Your task to perform on an android device: Go to ESPN.com Image 0: 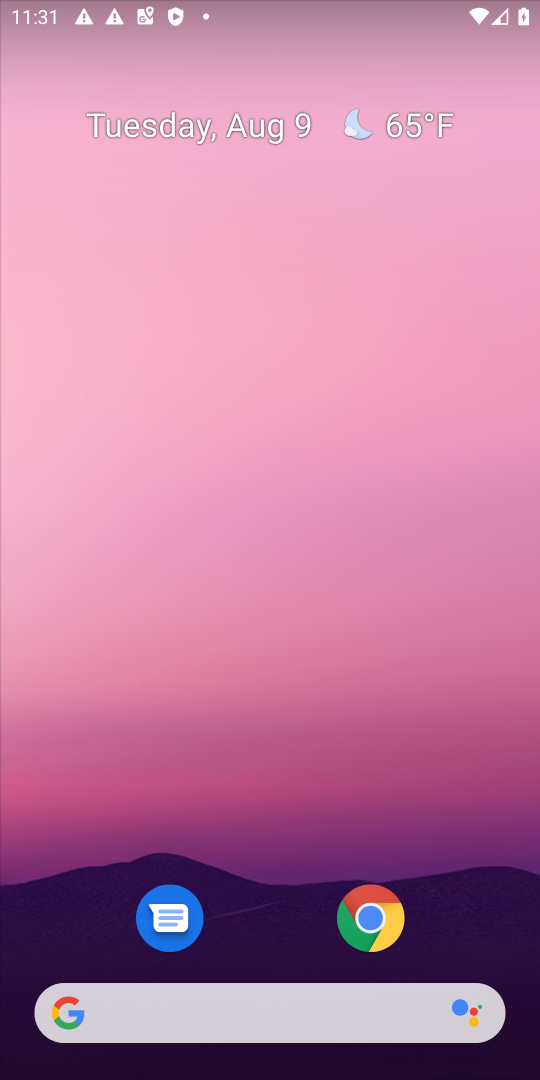
Step 0: drag from (276, 775) to (338, 100)
Your task to perform on an android device: Go to ESPN.com Image 1: 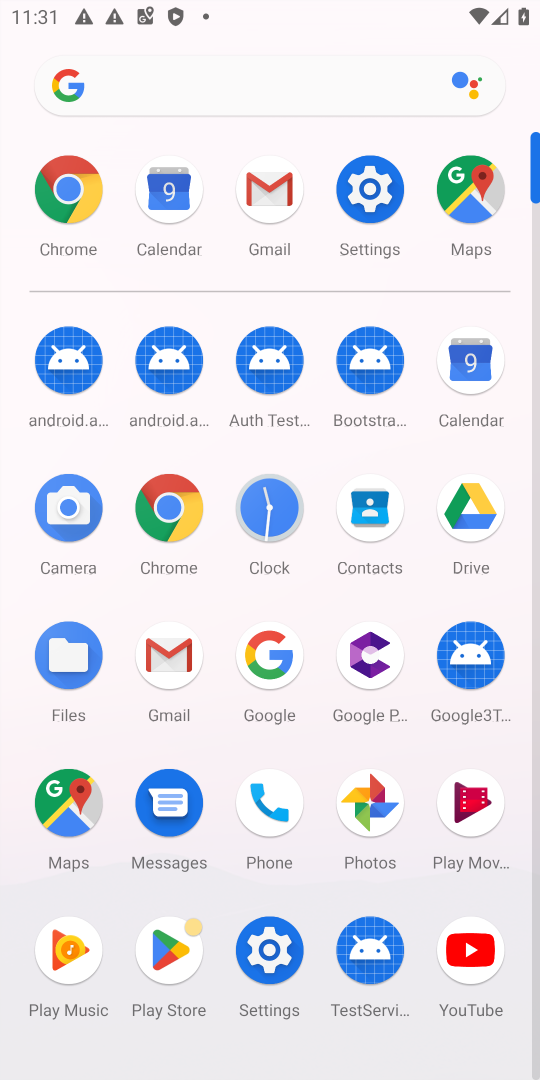
Step 1: click (171, 509)
Your task to perform on an android device: Go to ESPN.com Image 2: 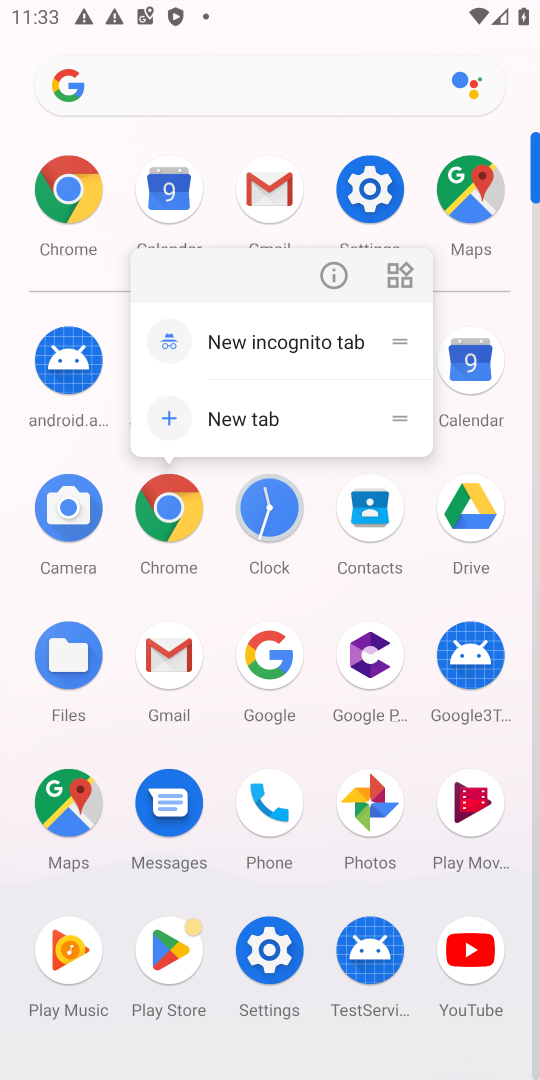
Step 2: click (172, 510)
Your task to perform on an android device: Go to ESPN.com Image 3: 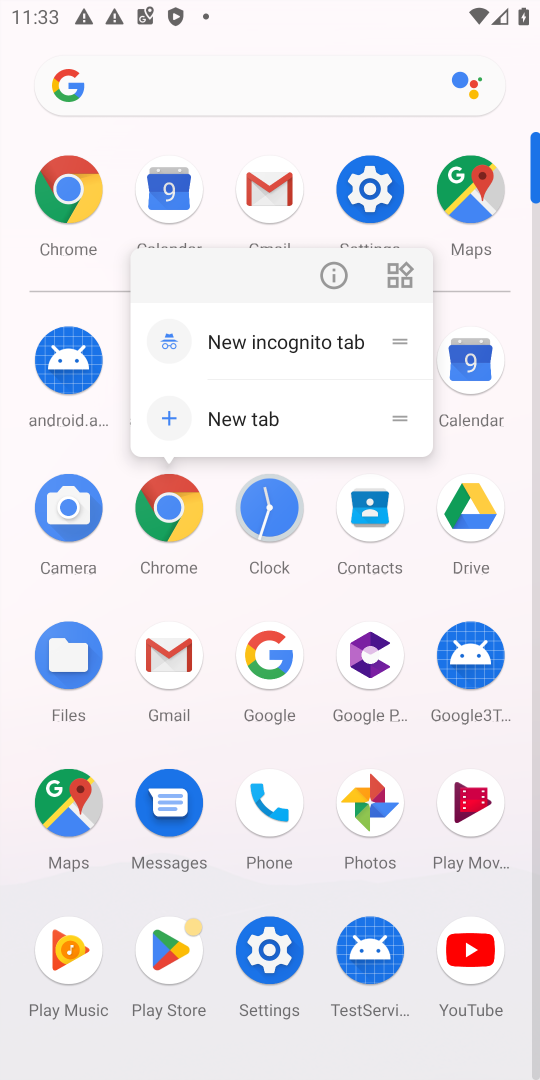
Step 3: click (170, 508)
Your task to perform on an android device: Go to ESPN.com Image 4: 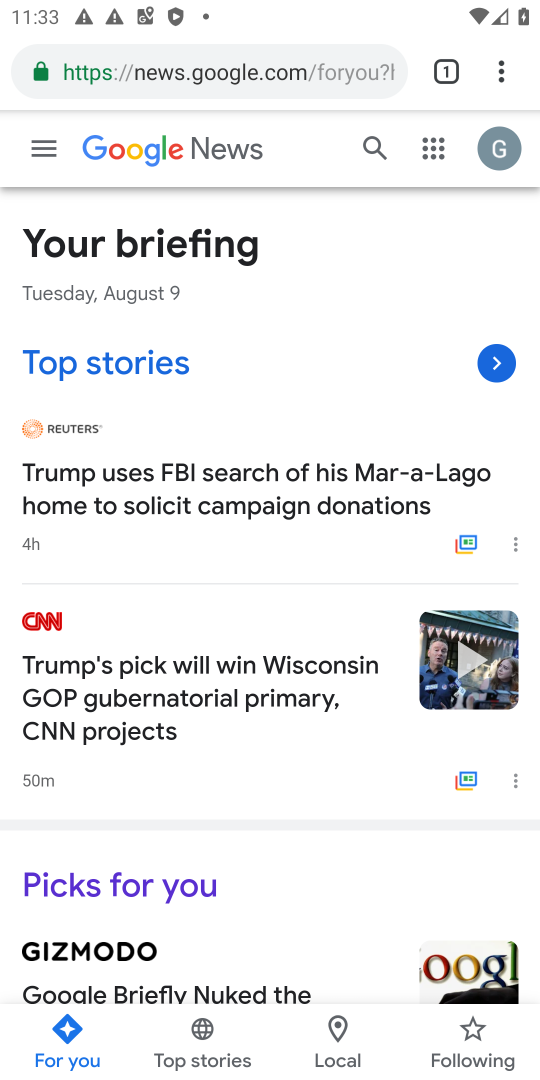
Step 4: click (359, 78)
Your task to perform on an android device: Go to ESPN.com Image 5: 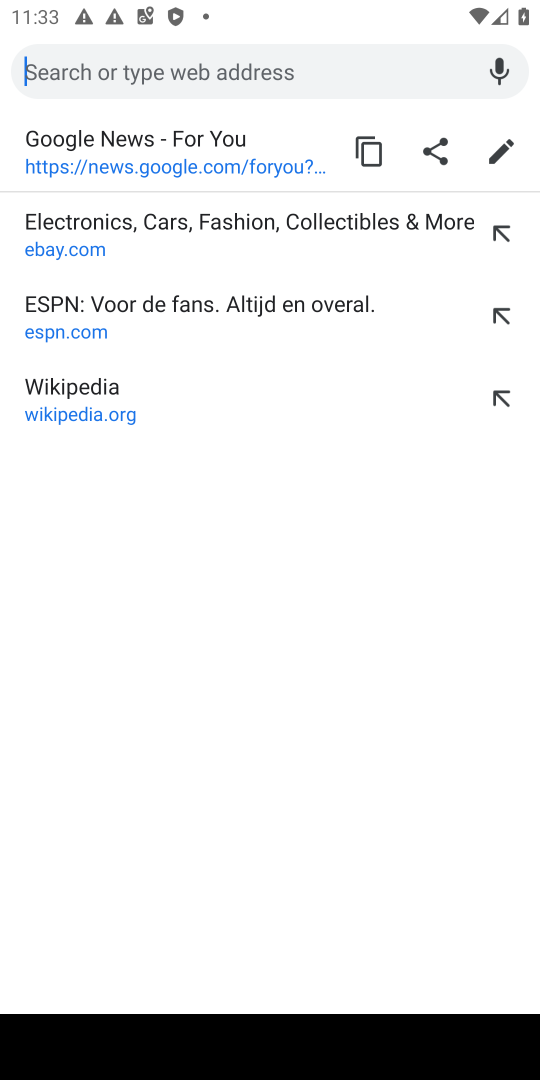
Step 5: click (38, 325)
Your task to perform on an android device: Go to ESPN.com Image 6: 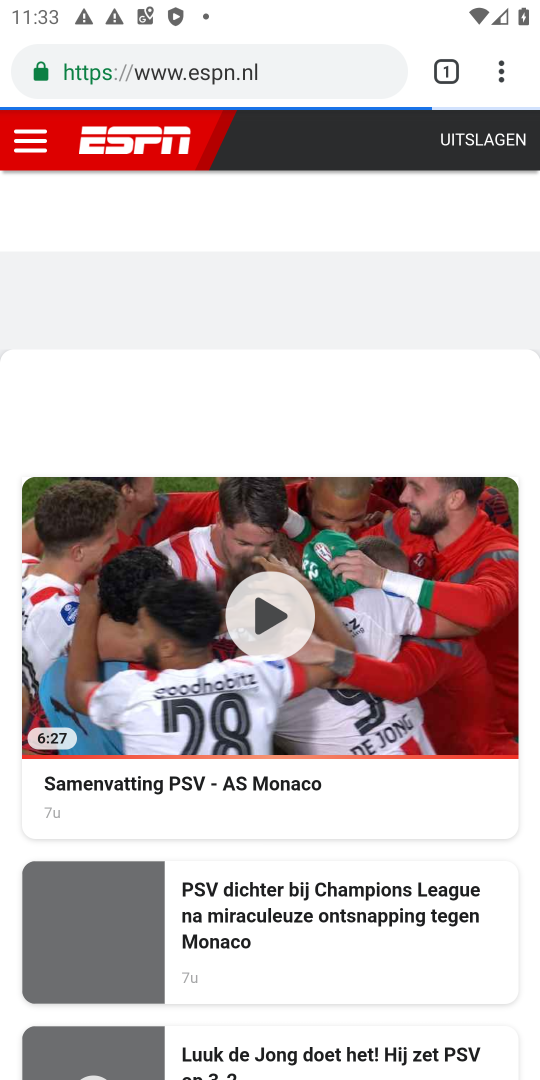
Step 6: task complete